Your task to perform on an android device: Go to battery settings Image 0: 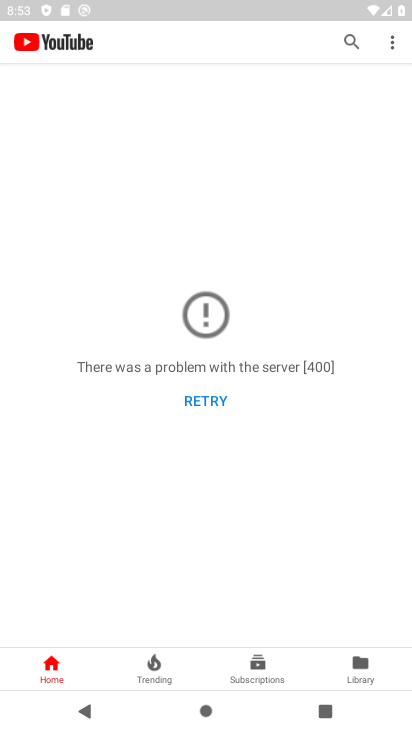
Step 0: press home button
Your task to perform on an android device: Go to battery settings Image 1: 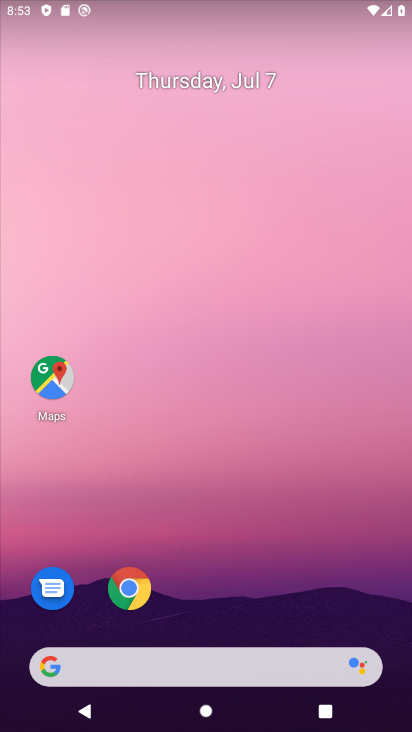
Step 1: drag from (189, 685) to (272, 158)
Your task to perform on an android device: Go to battery settings Image 2: 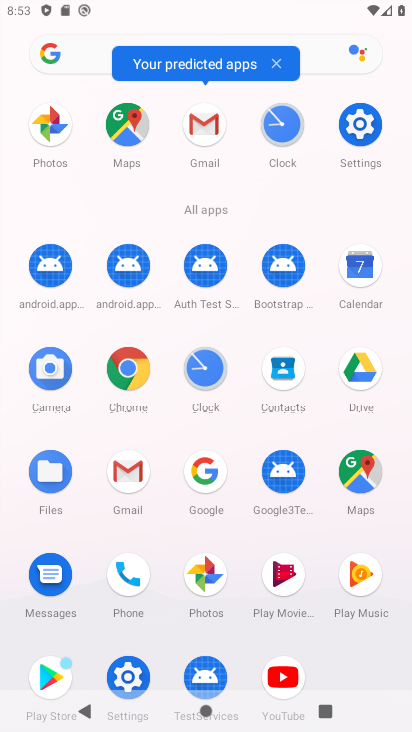
Step 2: drag from (103, 675) to (186, 332)
Your task to perform on an android device: Go to battery settings Image 3: 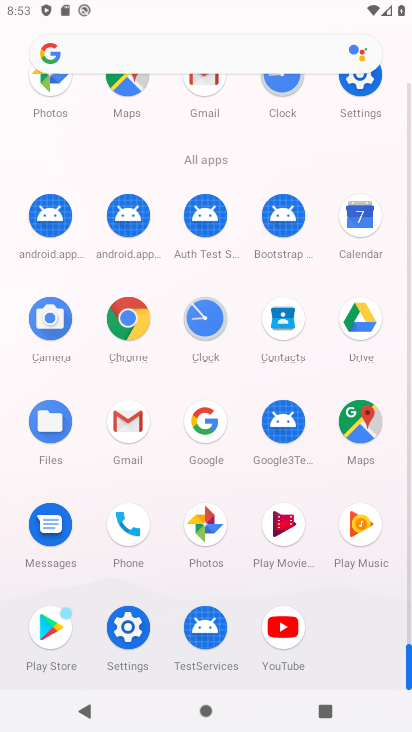
Step 3: click (127, 629)
Your task to perform on an android device: Go to battery settings Image 4: 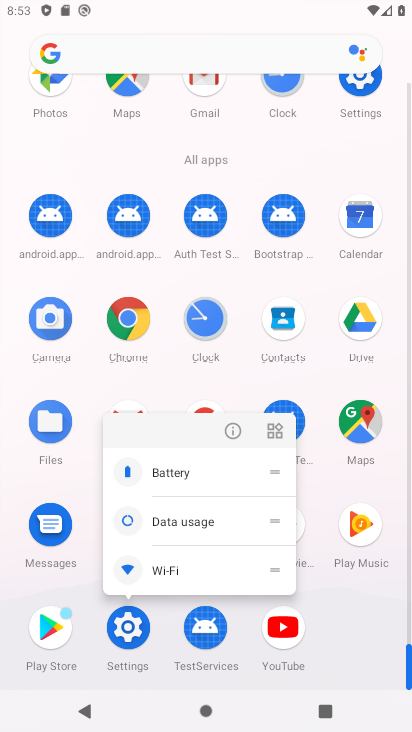
Step 4: click (131, 629)
Your task to perform on an android device: Go to battery settings Image 5: 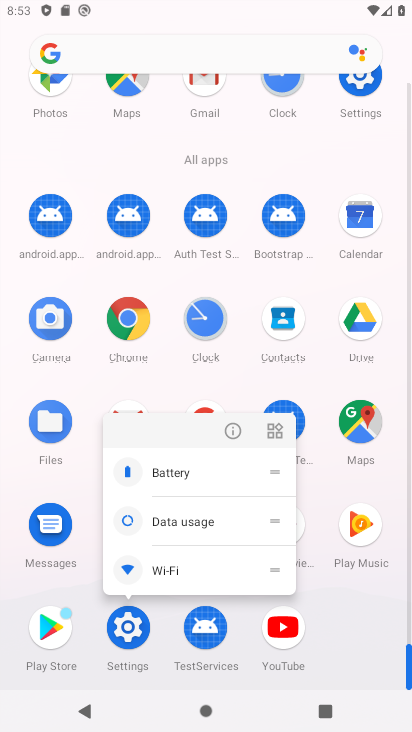
Step 5: click (132, 642)
Your task to perform on an android device: Go to battery settings Image 6: 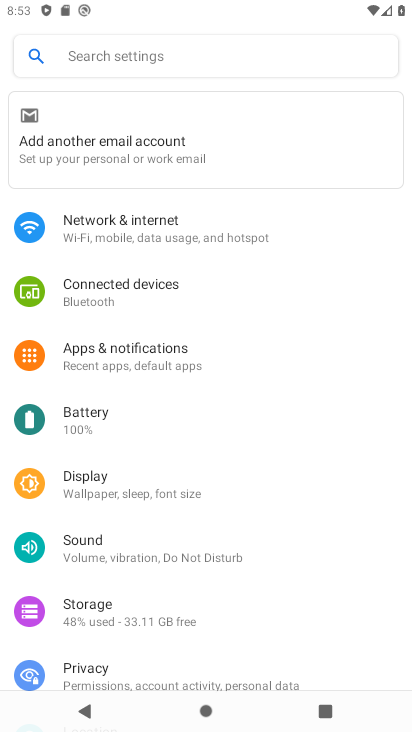
Step 6: click (133, 434)
Your task to perform on an android device: Go to battery settings Image 7: 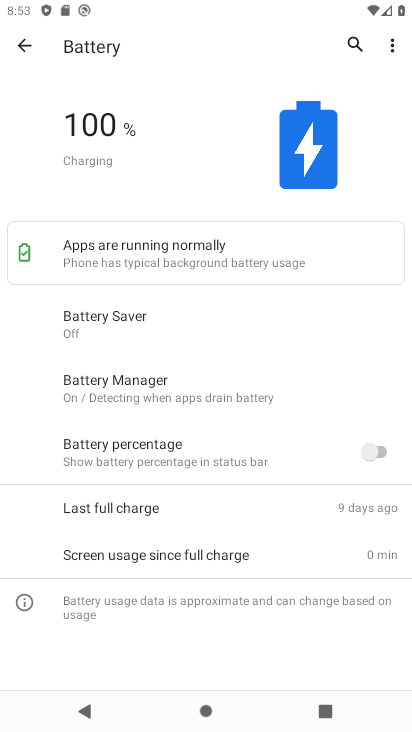
Step 7: task complete